Your task to perform on an android device: Show me popular videos on Youtube Image 0: 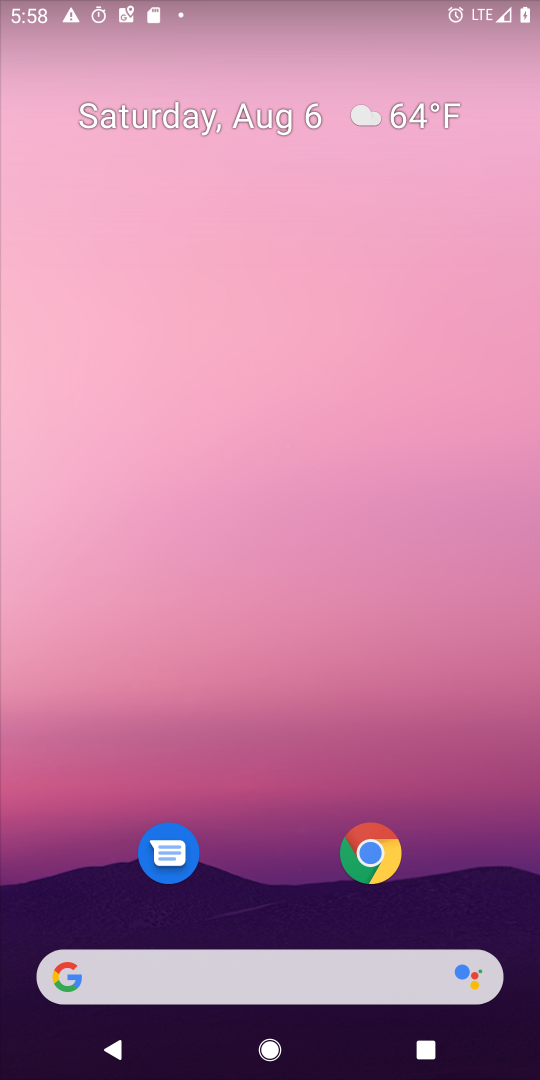
Step 0: drag from (265, 814) to (299, 174)
Your task to perform on an android device: Show me popular videos on Youtube Image 1: 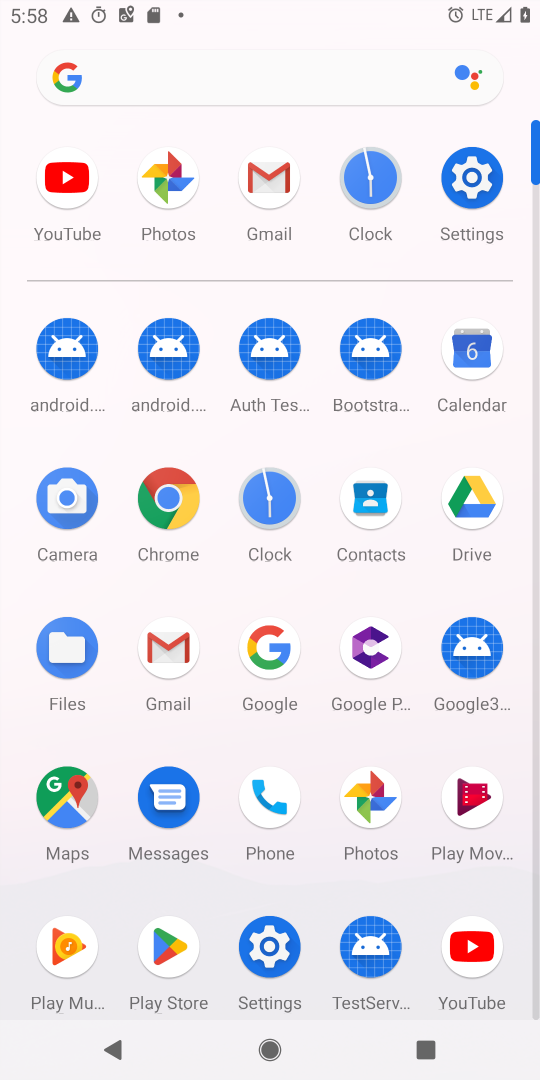
Step 1: click (467, 944)
Your task to perform on an android device: Show me popular videos on Youtube Image 2: 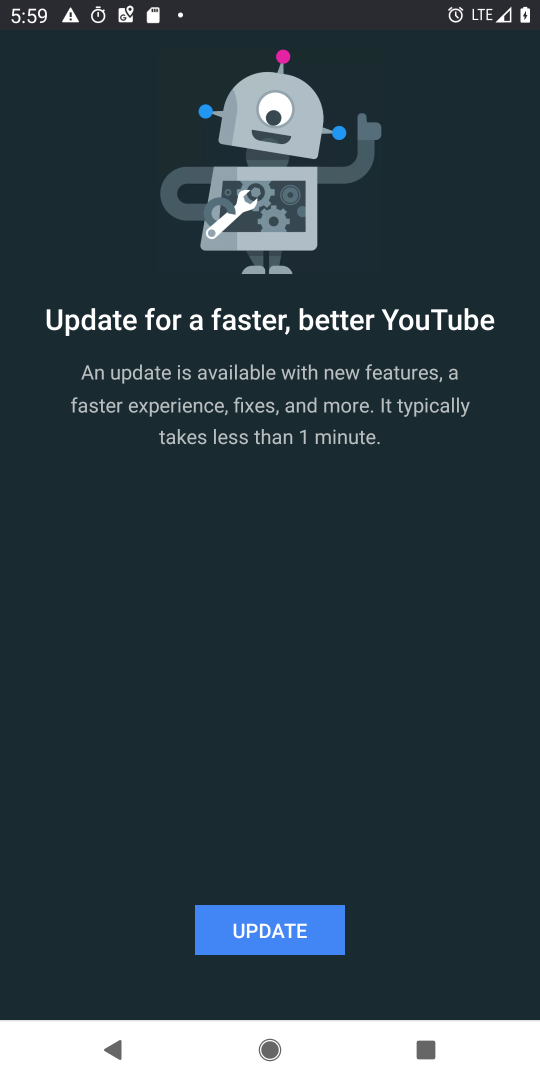
Step 2: task complete